Your task to perform on an android device: Go to calendar. Show me events next week Image 0: 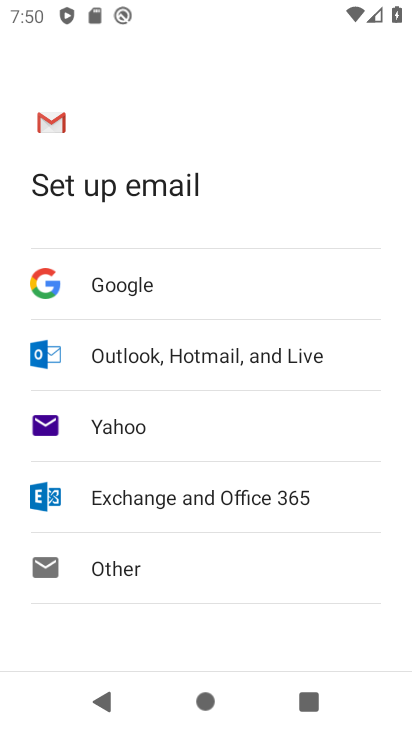
Step 0: press home button
Your task to perform on an android device: Go to calendar. Show me events next week Image 1: 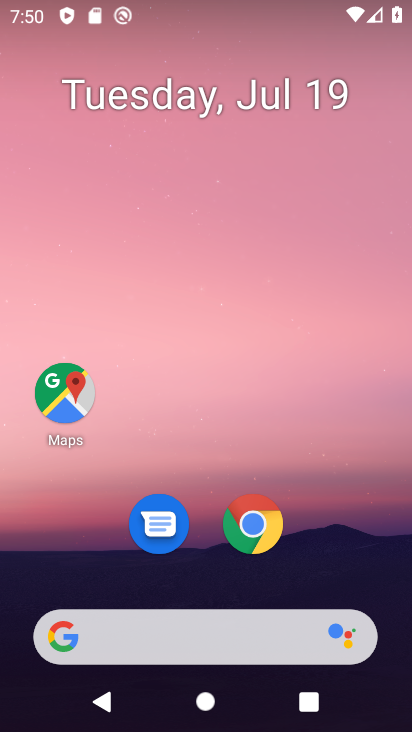
Step 1: drag from (322, 565) to (341, 57)
Your task to perform on an android device: Go to calendar. Show me events next week Image 2: 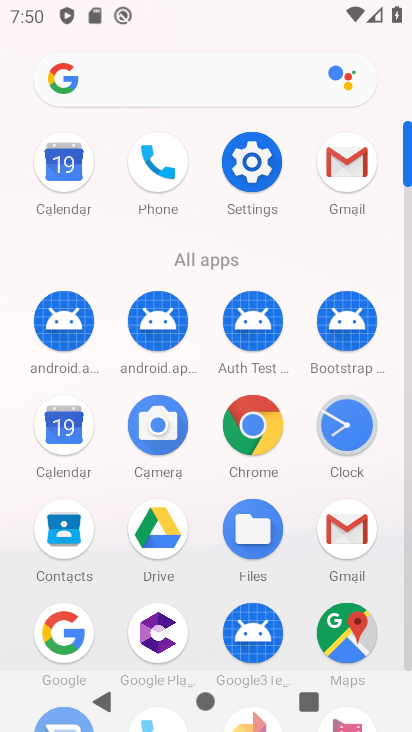
Step 2: click (62, 160)
Your task to perform on an android device: Go to calendar. Show me events next week Image 3: 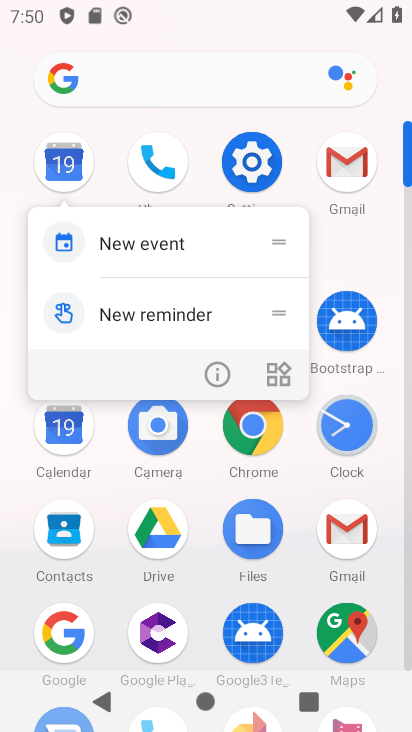
Step 3: click (62, 160)
Your task to perform on an android device: Go to calendar. Show me events next week Image 4: 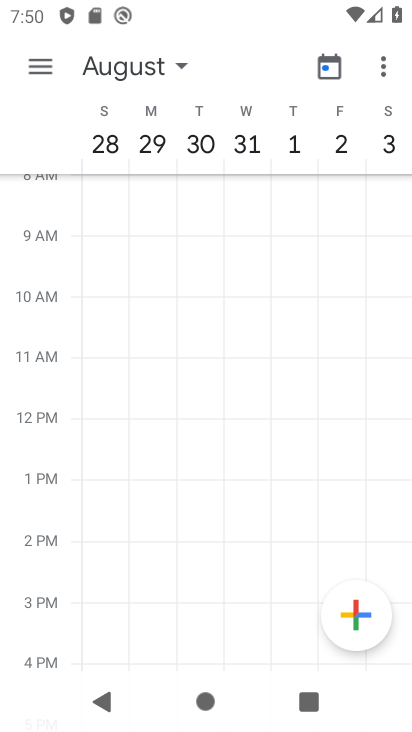
Step 4: task complete